Your task to perform on an android device: delete the emails in spam in the gmail app Image 0: 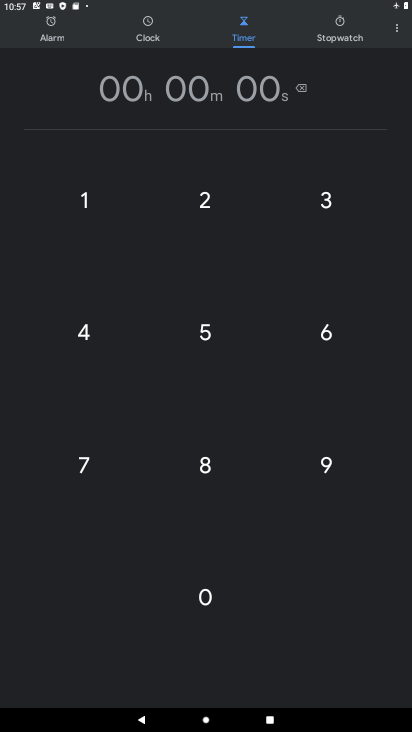
Step 0: press home button
Your task to perform on an android device: delete the emails in spam in the gmail app Image 1: 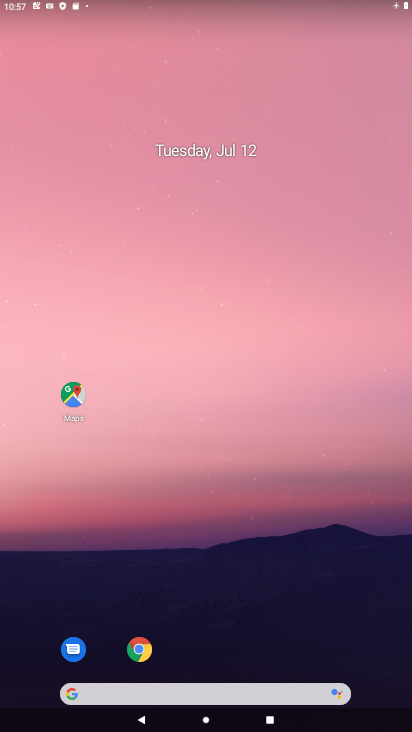
Step 1: drag from (374, 689) to (325, 110)
Your task to perform on an android device: delete the emails in spam in the gmail app Image 2: 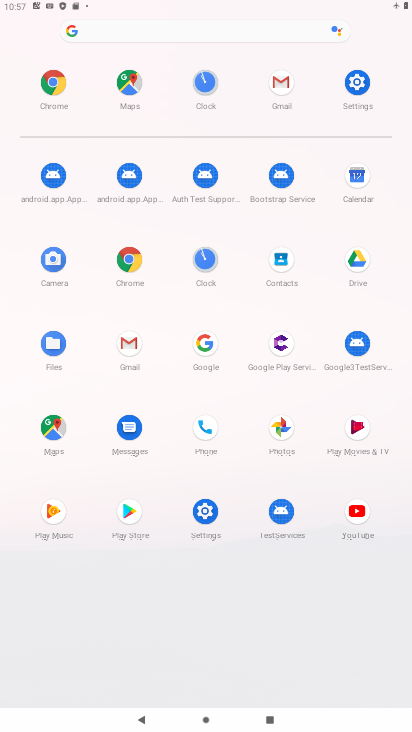
Step 2: click (126, 342)
Your task to perform on an android device: delete the emails in spam in the gmail app Image 3: 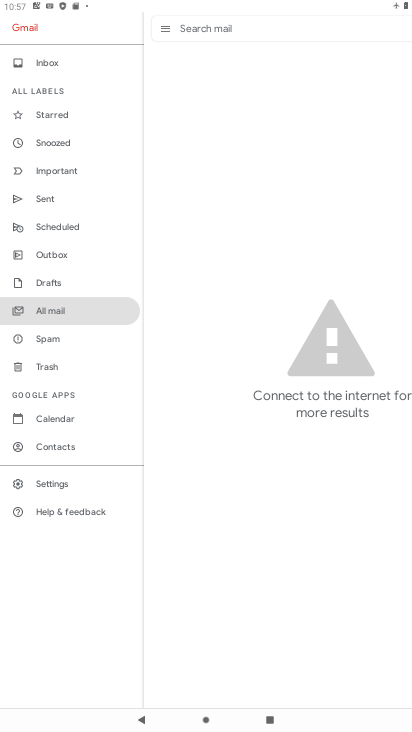
Step 3: click (44, 340)
Your task to perform on an android device: delete the emails in spam in the gmail app Image 4: 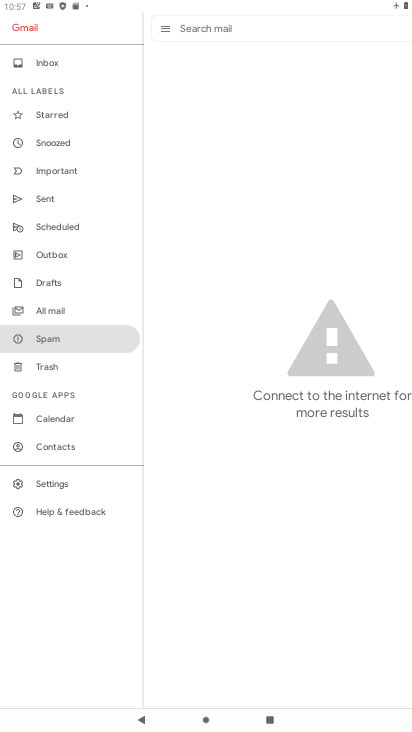
Step 4: press home button
Your task to perform on an android device: delete the emails in spam in the gmail app Image 5: 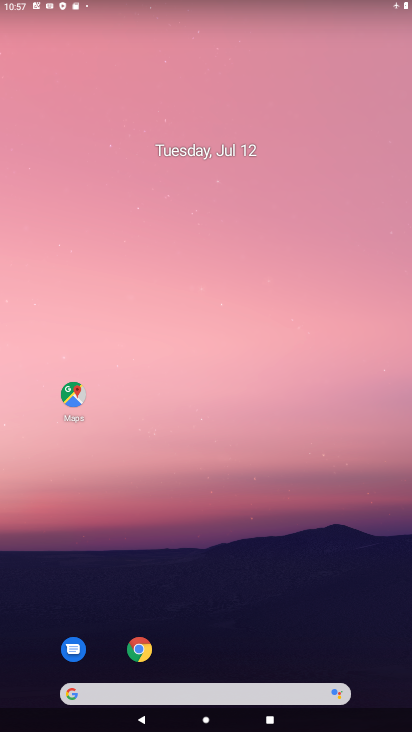
Step 5: drag from (353, 620) to (292, 114)
Your task to perform on an android device: delete the emails in spam in the gmail app Image 6: 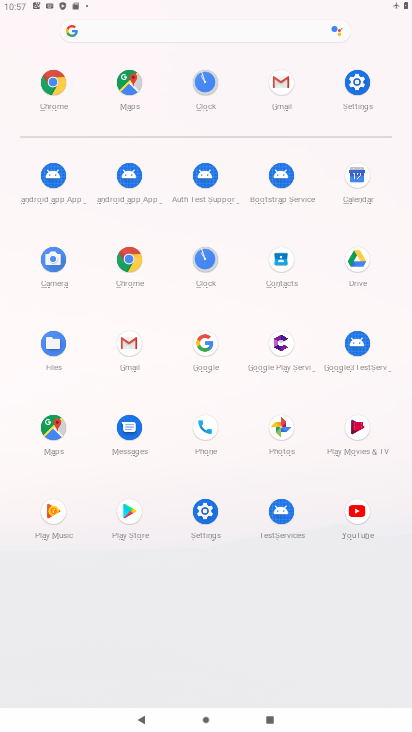
Step 6: click (207, 510)
Your task to perform on an android device: delete the emails in spam in the gmail app Image 7: 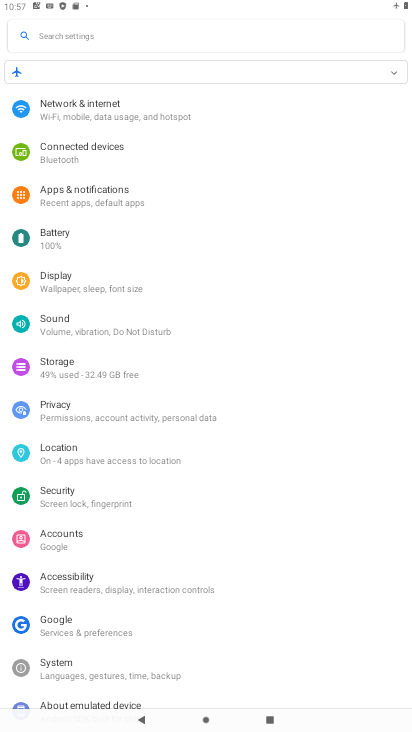
Step 7: click (78, 98)
Your task to perform on an android device: delete the emails in spam in the gmail app Image 8: 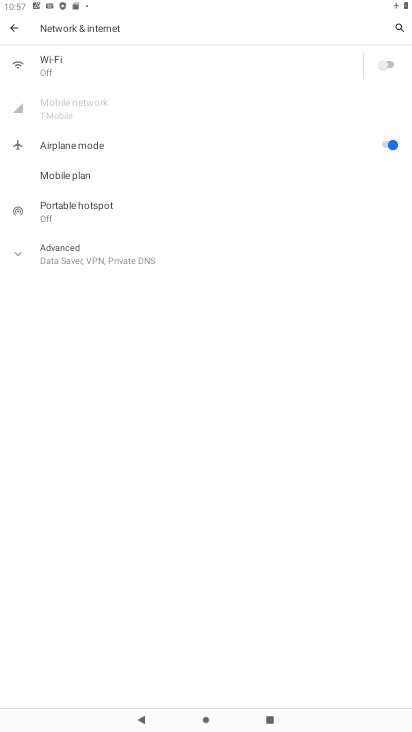
Step 8: click (382, 141)
Your task to perform on an android device: delete the emails in spam in the gmail app Image 9: 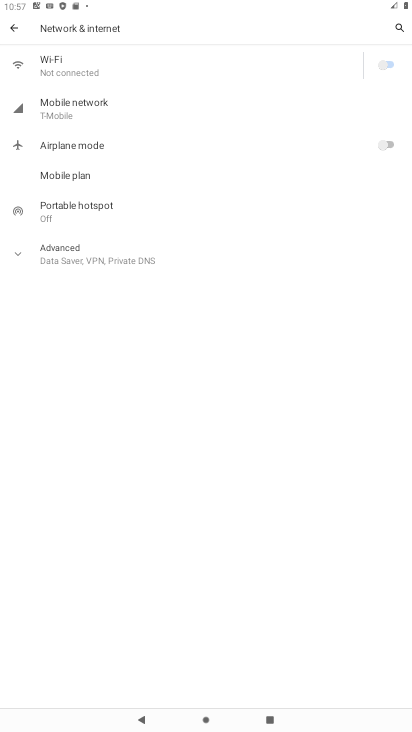
Step 9: click (389, 64)
Your task to perform on an android device: delete the emails in spam in the gmail app Image 10: 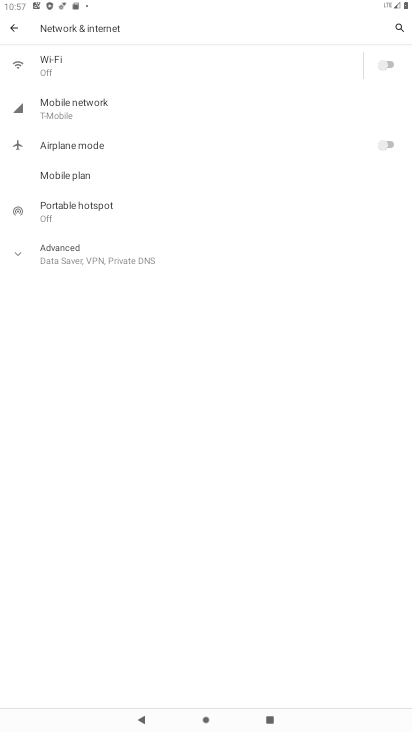
Step 10: click (389, 64)
Your task to perform on an android device: delete the emails in spam in the gmail app Image 11: 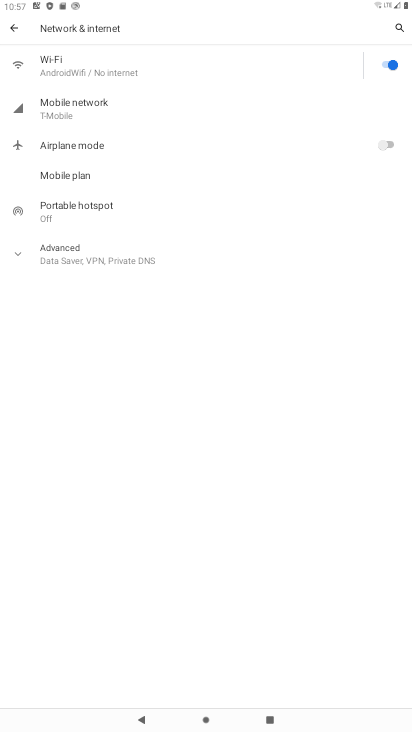
Step 11: press back button
Your task to perform on an android device: delete the emails in spam in the gmail app Image 12: 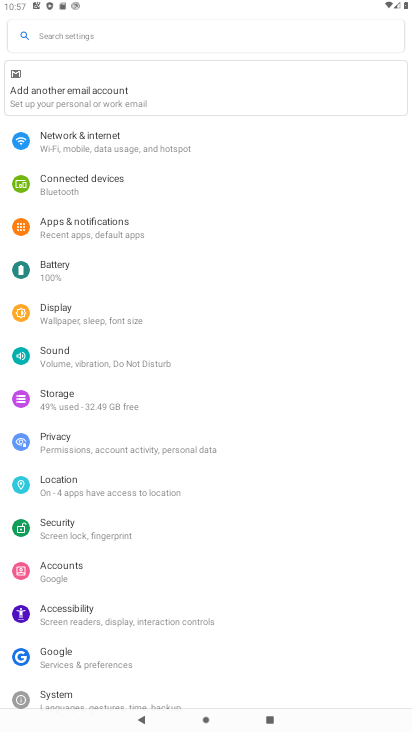
Step 12: press home button
Your task to perform on an android device: delete the emails in spam in the gmail app Image 13: 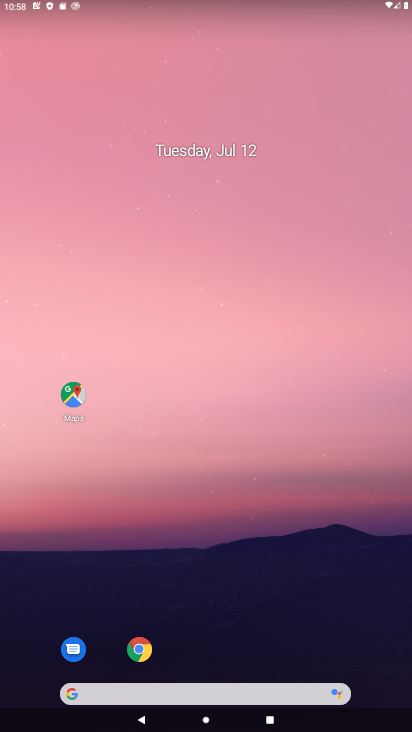
Step 13: drag from (347, 661) to (304, 169)
Your task to perform on an android device: delete the emails in spam in the gmail app Image 14: 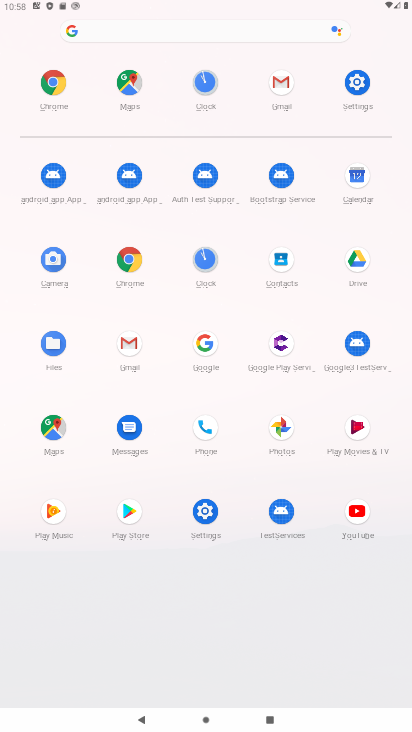
Step 14: click (127, 340)
Your task to perform on an android device: delete the emails in spam in the gmail app Image 15: 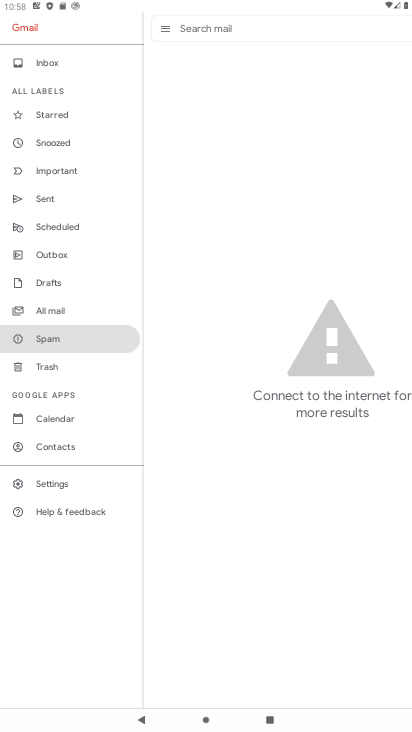
Step 15: click (66, 339)
Your task to perform on an android device: delete the emails in spam in the gmail app Image 16: 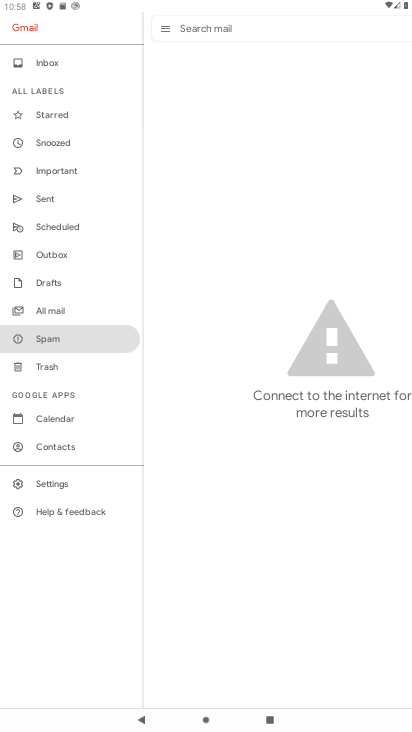
Step 16: task complete